Your task to perform on an android device: toggle location history Image 0: 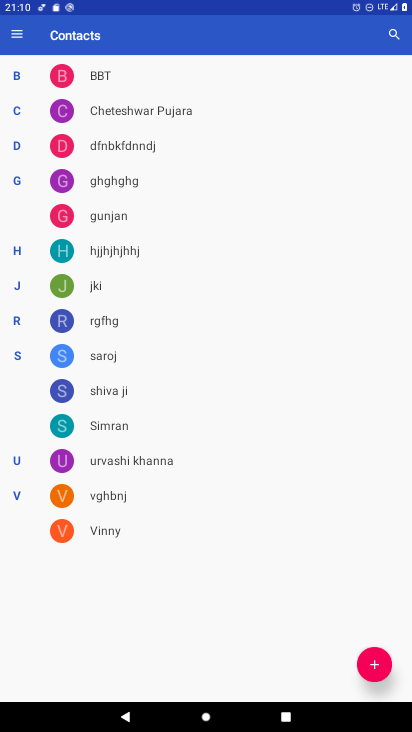
Step 0: press home button
Your task to perform on an android device: toggle location history Image 1: 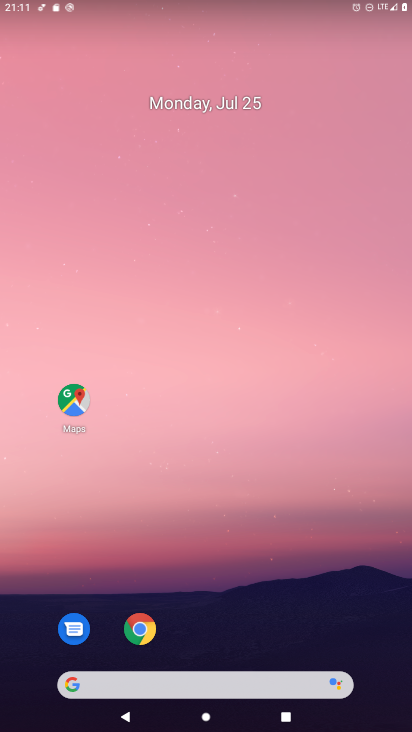
Step 1: drag from (197, 690) to (237, 137)
Your task to perform on an android device: toggle location history Image 2: 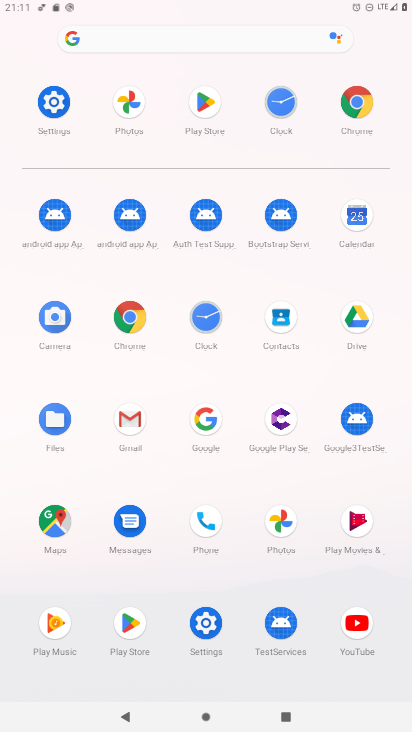
Step 2: click (52, 101)
Your task to perform on an android device: toggle location history Image 3: 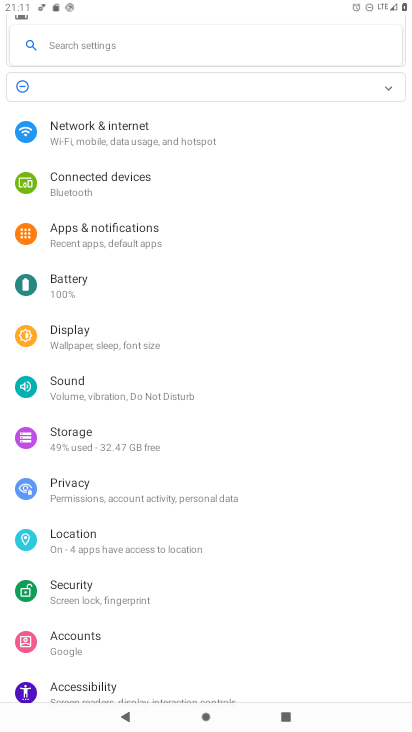
Step 3: click (99, 546)
Your task to perform on an android device: toggle location history Image 4: 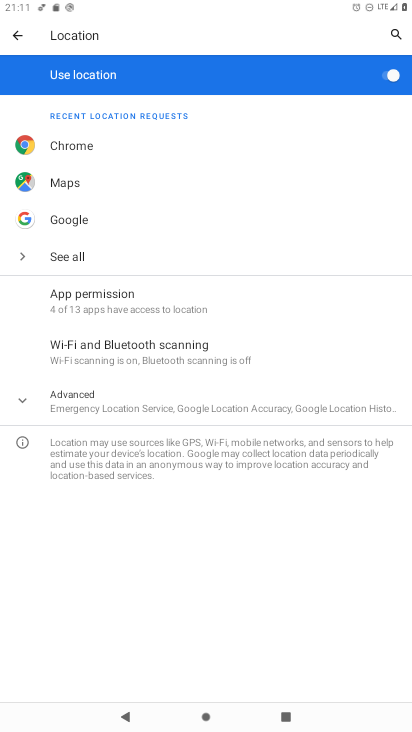
Step 4: click (159, 400)
Your task to perform on an android device: toggle location history Image 5: 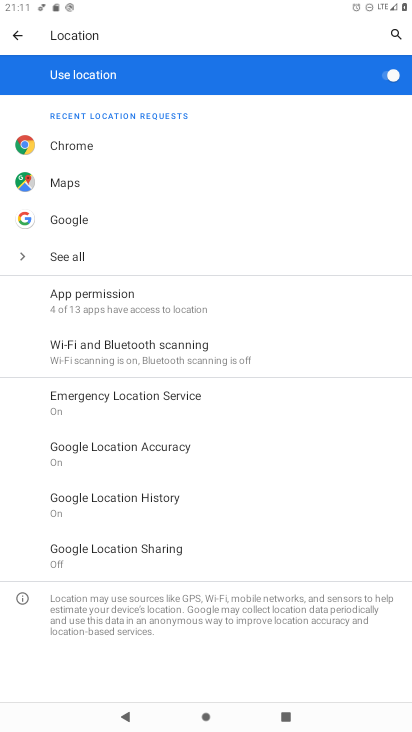
Step 5: click (164, 495)
Your task to perform on an android device: toggle location history Image 6: 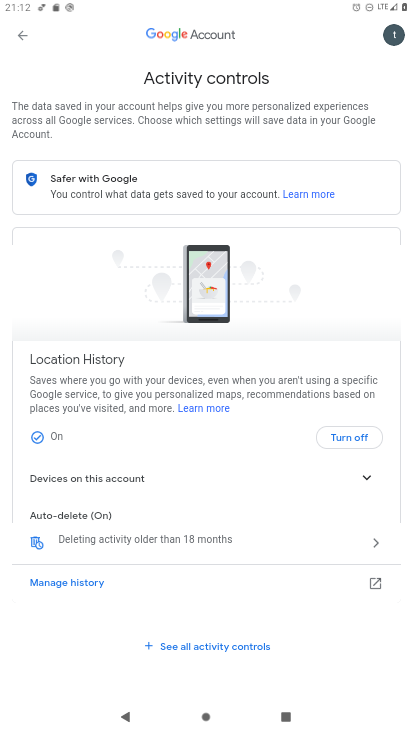
Step 6: click (355, 437)
Your task to perform on an android device: toggle location history Image 7: 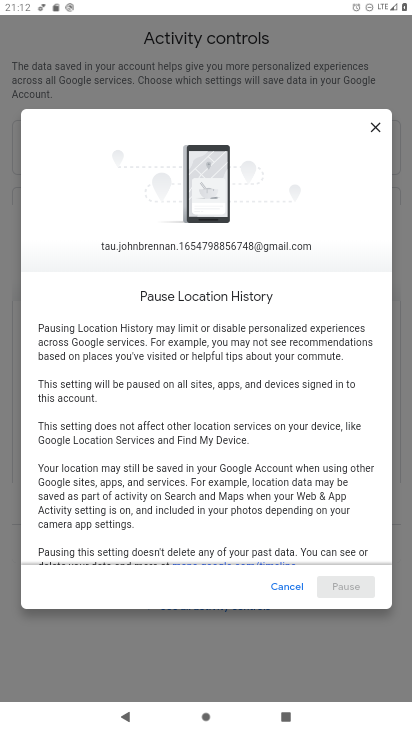
Step 7: drag from (278, 515) to (345, 396)
Your task to perform on an android device: toggle location history Image 8: 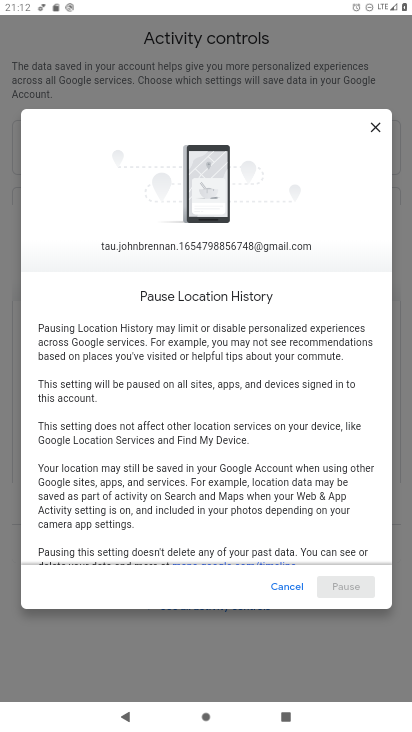
Step 8: drag from (258, 533) to (258, 383)
Your task to perform on an android device: toggle location history Image 9: 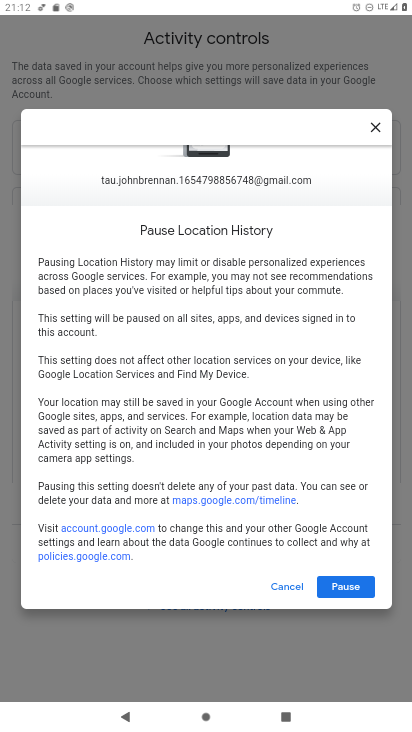
Step 9: click (352, 585)
Your task to perform on an android device: toggle location history Image 10: 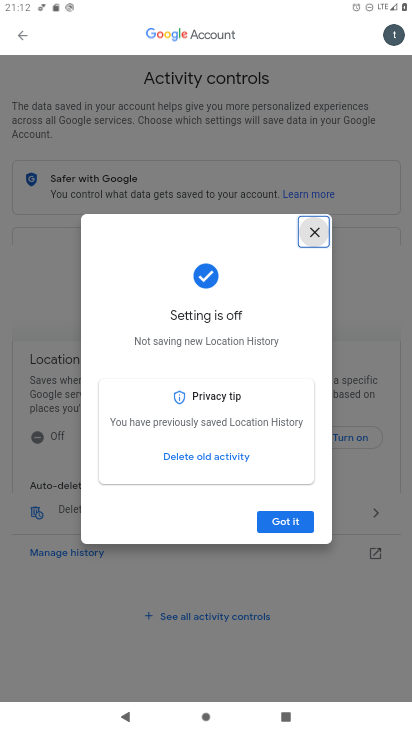
Step 10: click (291, 520)
Your task to perform on an android device: toggle location history Image 11: 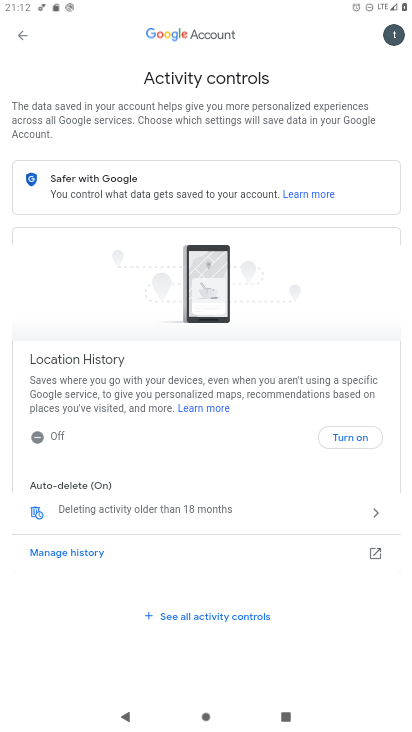
Step 11: task complete